Your task to perform on an android device: delete a single message in the gmail app Image 0: 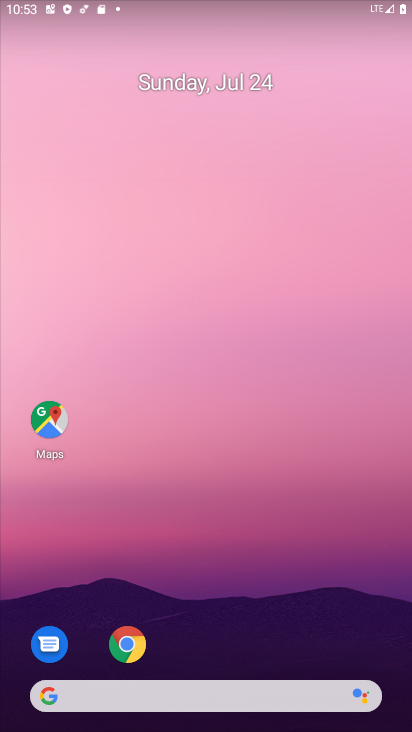
Step 0: drag from (354, 728) to (311, 58)
Your task to perform on an android device: delete a single message in the gmail app Image 1: 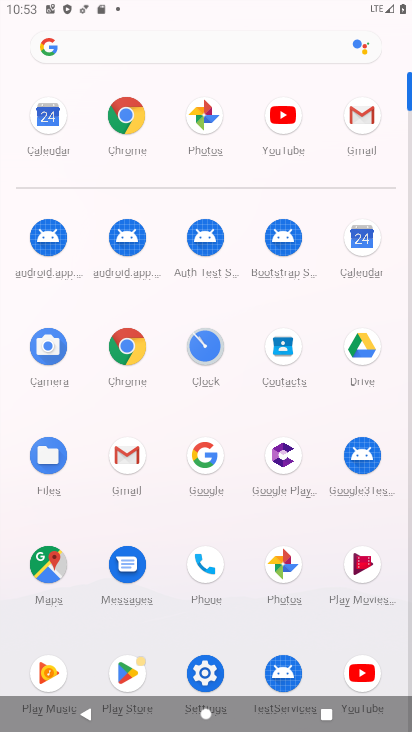
Step 1: click (366, 131)
Your task to perform on an android device: delete a single message in the gmail app Image 2: 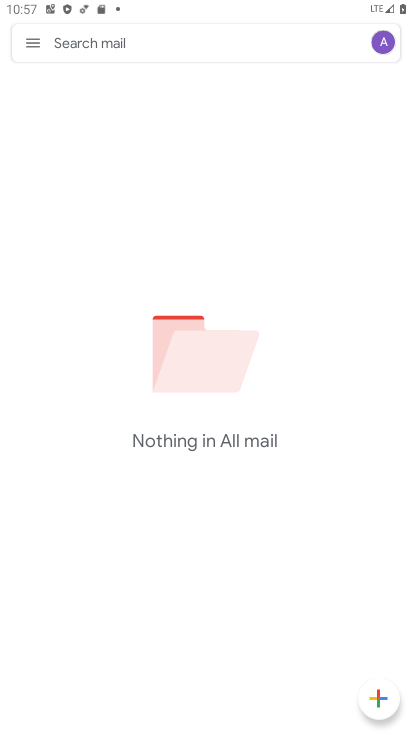
Step 2: task complete